Your task to perform on an android device: Open the Play Movies app and select the watchlist tab. Image 0: 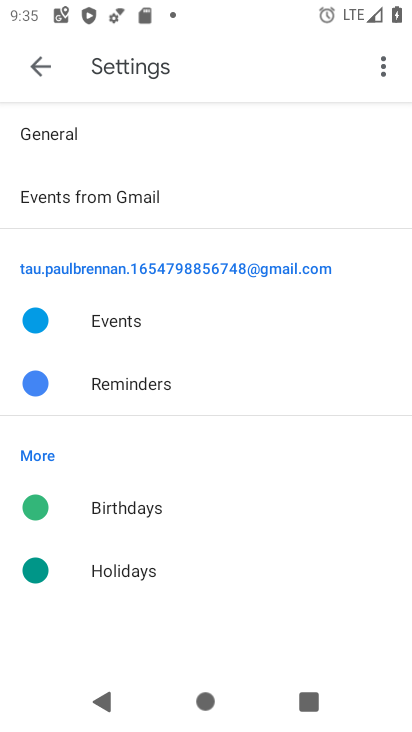
Step 0: press home button
Your task to perform on an android device: Open the Play Movies app and select the watchlist tab. Image 1: 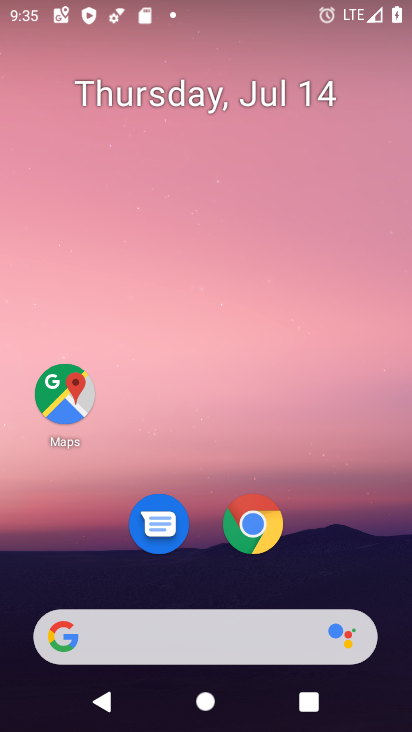
Step 1: drag from (313, 552) to (275, 34)
Your task to perform on an android device: Open the Play Movies app and select the watchlist tab. Image 2: 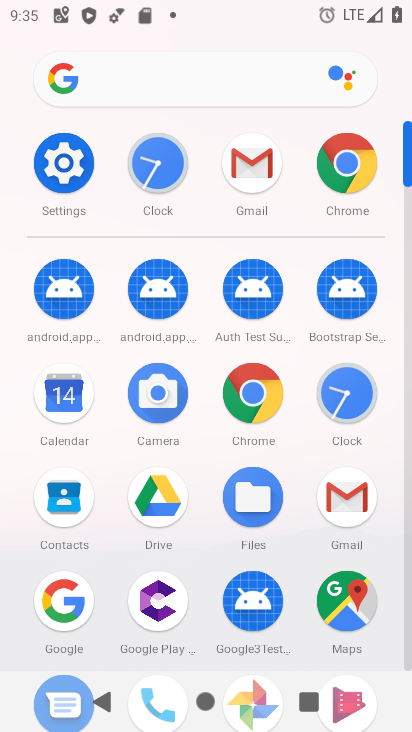
Step 2: drag from (294, 468) to (270, 89)
Your task to perform on an android device: Open the Play Movies app and select the watchlist tab. Image 3: 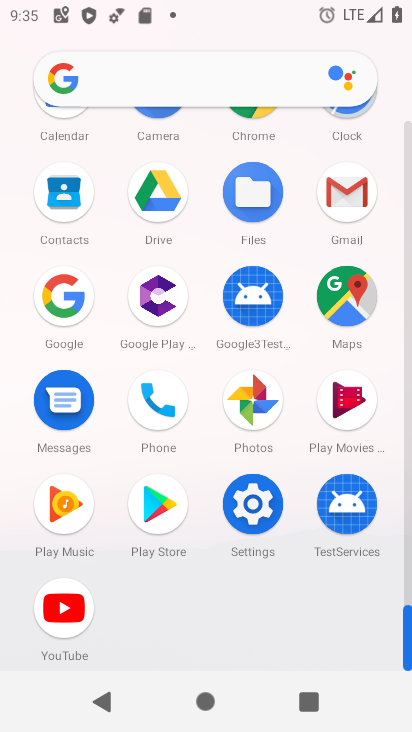
Step 3: click (337, 402)
Your task to perform on an android device: Open the Play Movies app and select the watchlist tab. Image 4: 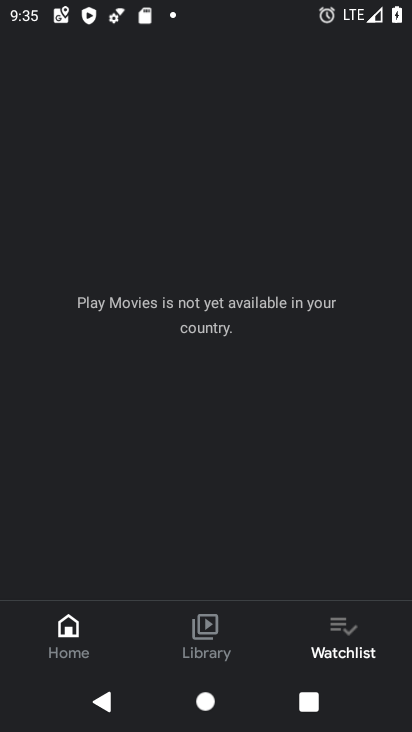
Step 4: click (355, 623)
Your task to perform on an android device: Open the Play Movies app and select the watchlist tab. Image 5: 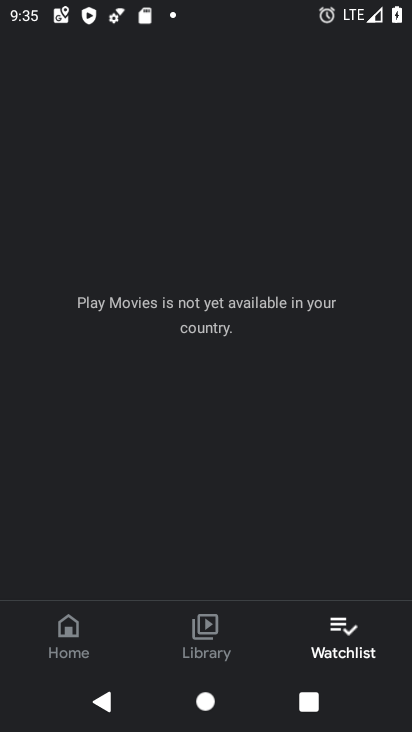
Step 5: task complete